Your task to perform on an android device: Do I have any events today? Image 0: 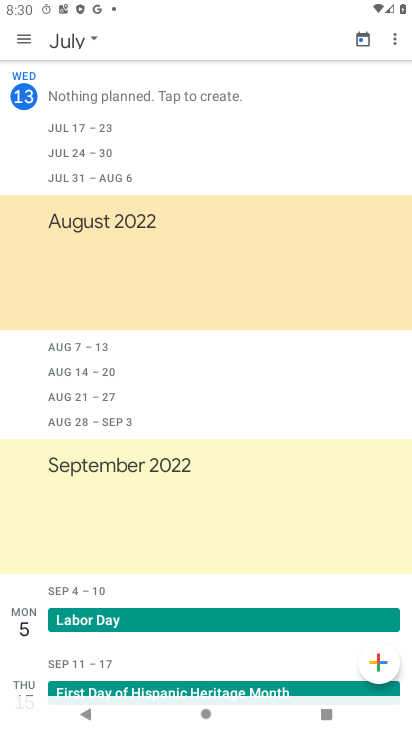
Step 0: press back button
Your task to perform on an android device: Do I have any events today? Image 1: 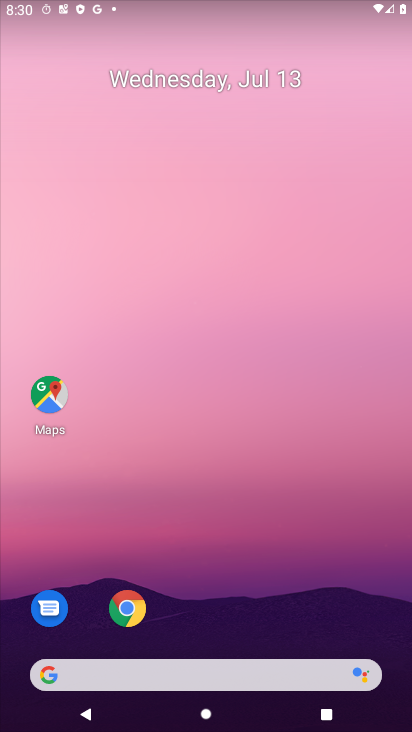
Step 1: click (93, 39)
Your task to perform on an android device: Do I have any events today? Image 2: 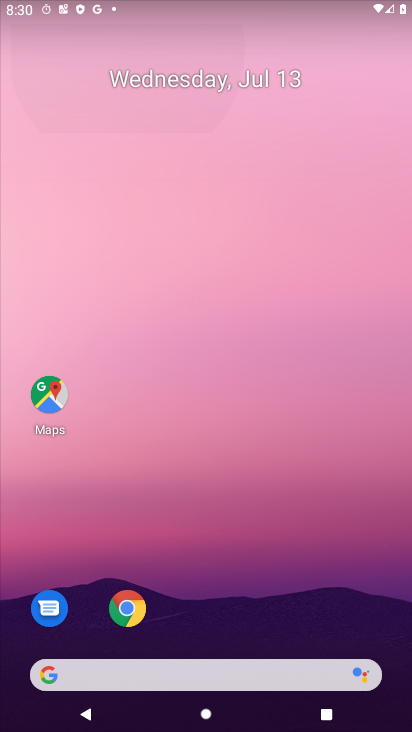
Step 2: click (93, 39)
Your task to perform on an android device: Do I have any events today? Image 3: 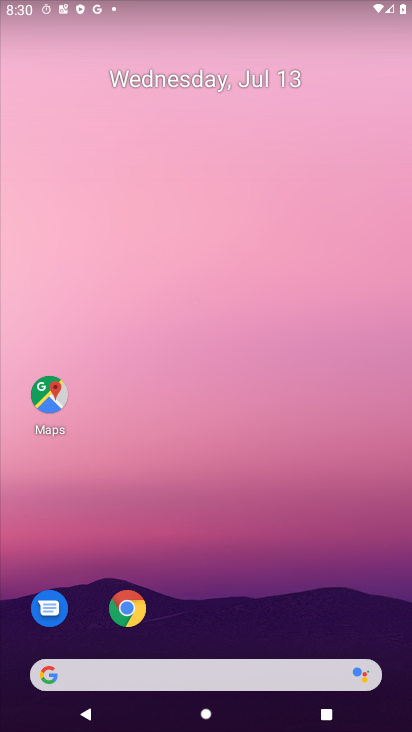
Step 3: drag from (160, 475) to (146, 243)
Your task to perform on an android device: Do I have any events today? Image 4: 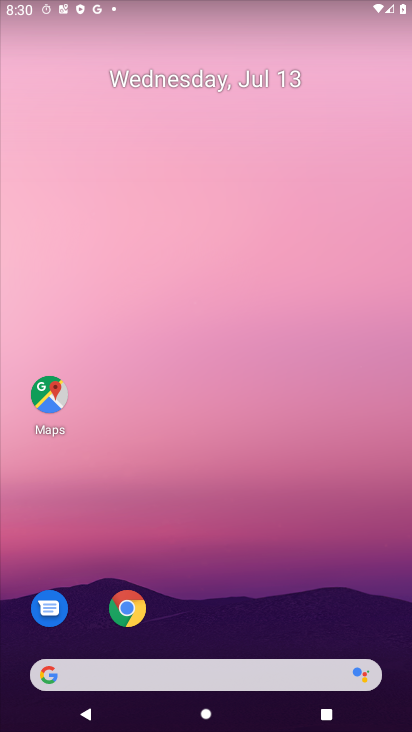
Step 4: drag from (159, 448) to (152, 0)
Your task to perform on an android device: Do I have any events today? Image 5: 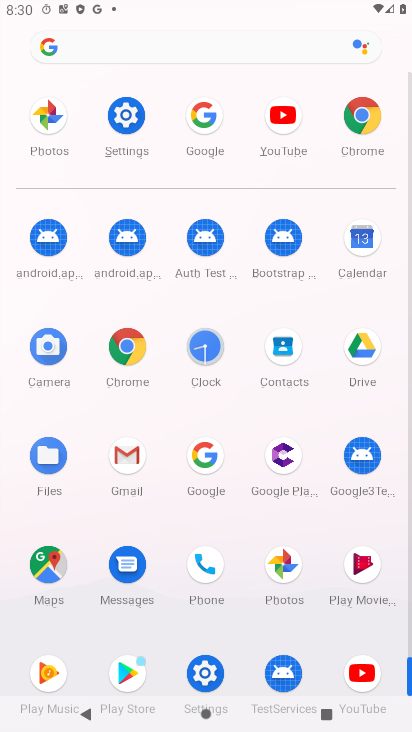
Step 5: drag from (183, 448) to (49, 52)
Your task to perform on an android device: Do I have any events today? Image 6: 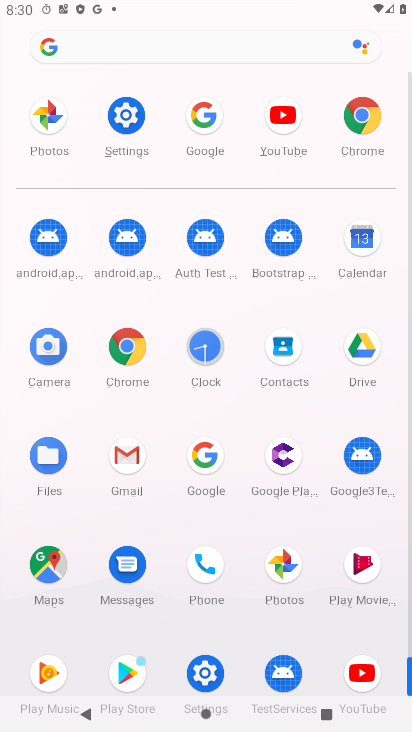
Step 6: drag from (237, 551) to (183, 37)
Your task to perform on an android device: Do I have any events today? Image 7: 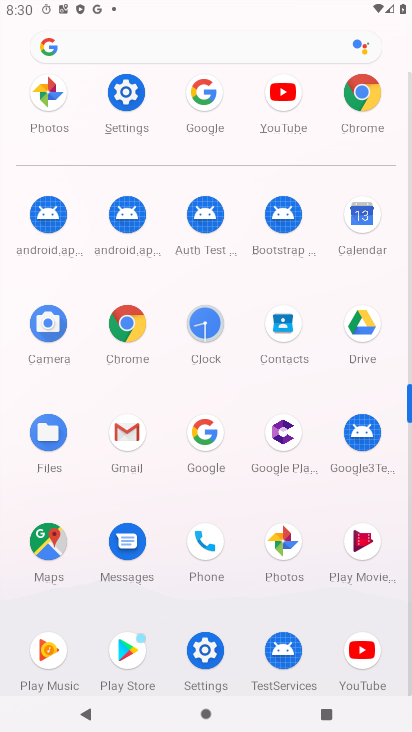
Step 7: click (183, 11)
Your task to perform on an android device: Do I have any events today? Image 8: 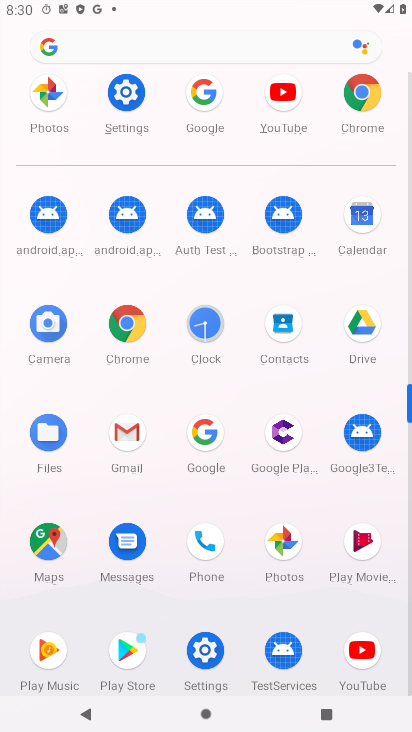
Step 8: click (372, 208)
Your task to perform on an android device: Do I have any events today? Image 9: 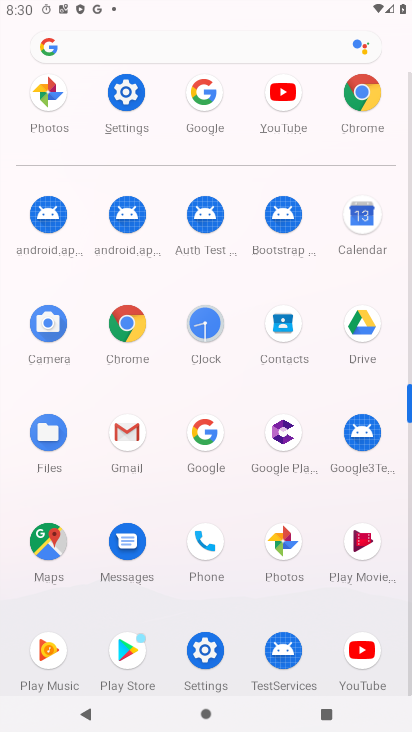
Step 9: click (372, 208)
Your task to perform on an android device: Do I have any events today? Image 10: 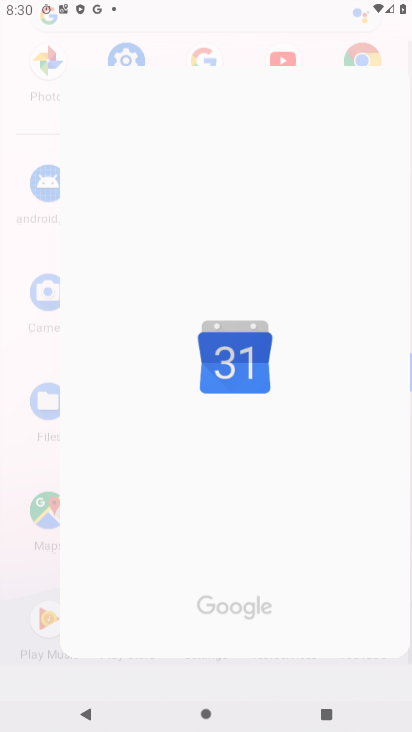
Step 10: click (372, 208)
Your task to perform on an android device: Do I have any events today? Image 11: 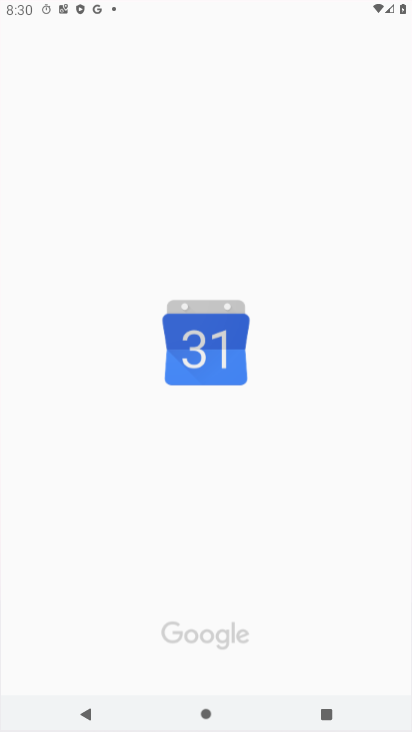
Step 11: click (372, 209)
Your task to perform on an android device: Do I have any events today? Image 12: 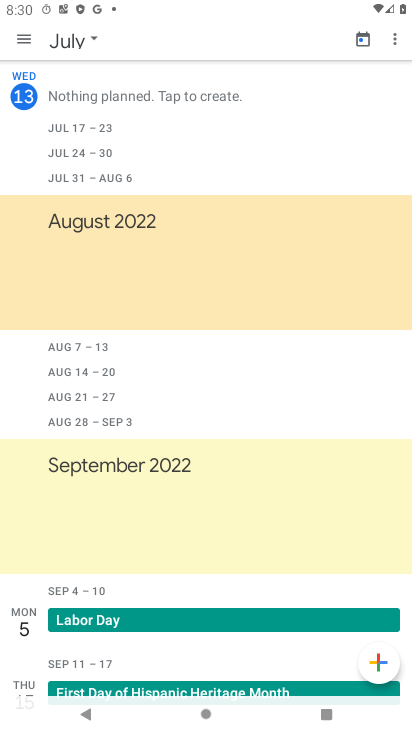
Step 12: task complete